Your task to perform on an android device: Show me productivity apps on the Play Store Image 0: 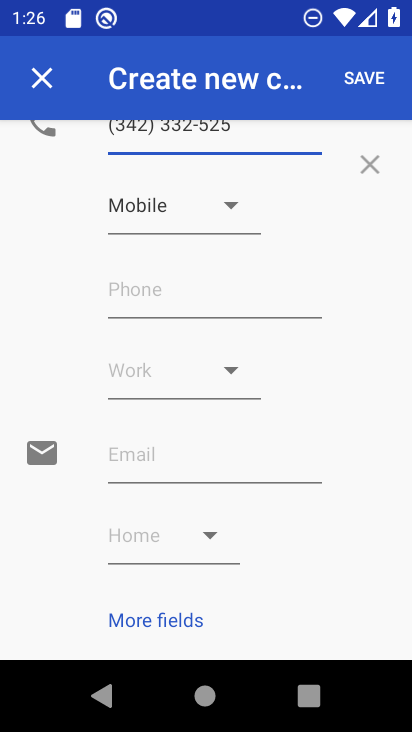
Step 0: press home button
Your task to perform on an android device: Show me productivity apps on the Play Store Image 1: 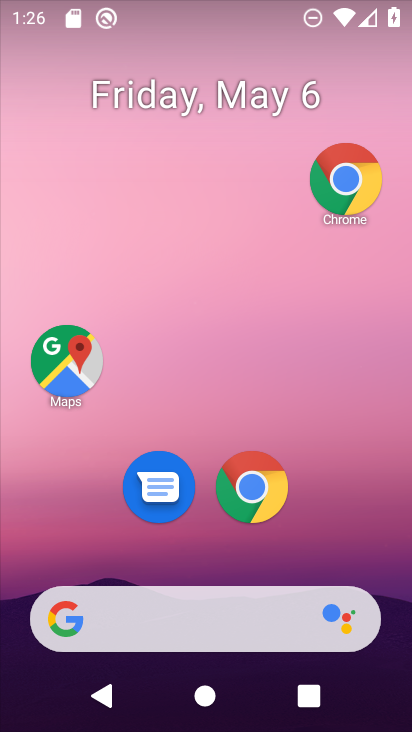
Step 1: drag from (347, 534) to (307, 168)
Your task to perform on an android device: Show me productivity apps on the Play Store Image 2: 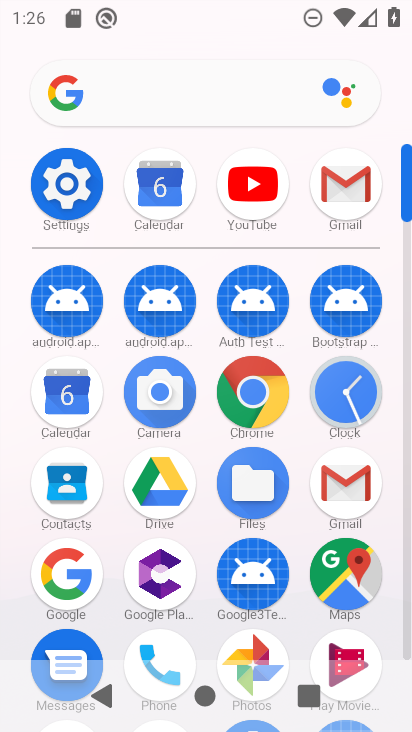
Step 2: click (410, 454)
Your task to perform on an android device: Show me productivity apps on the Play Store Image 3: 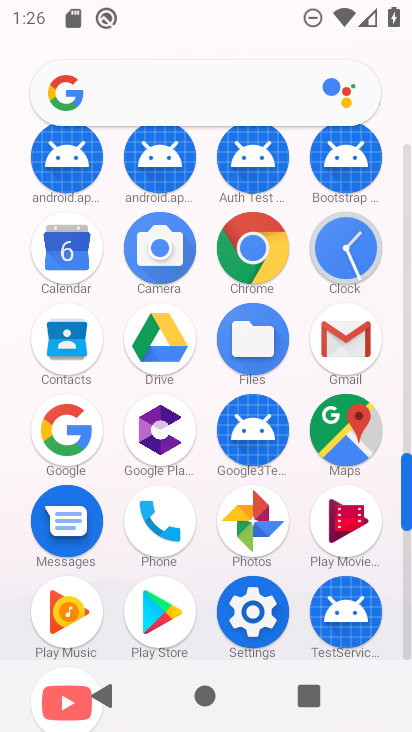
Step 3: click (143, 619)
Your task to perform on an android device: Show me productivity apps on the Play Store Image 4: 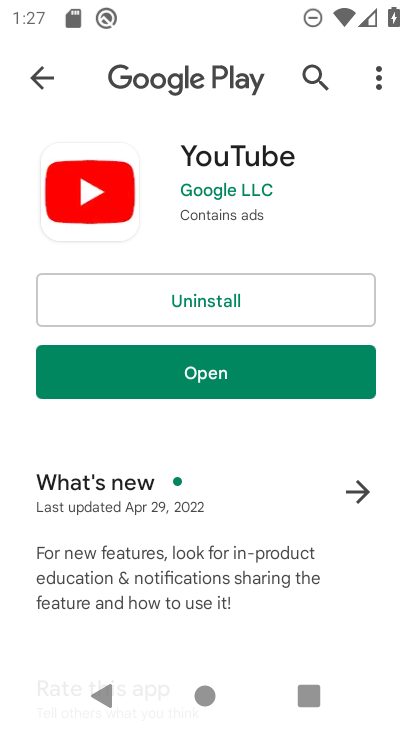
Step 4: click (318, 394)
Your task to perform on an android device: Show me productivity apps on the Play Store Image 5: 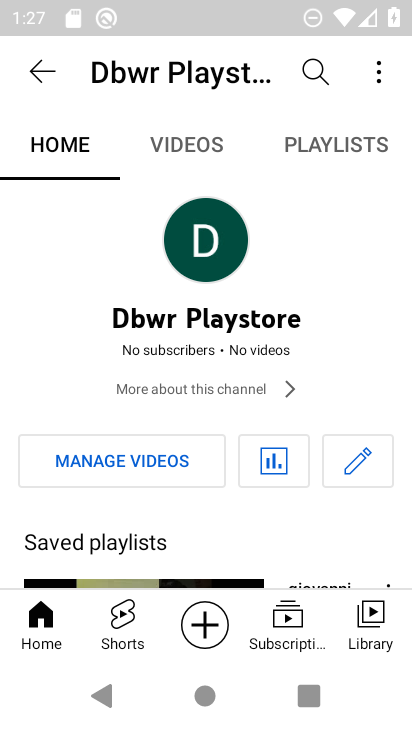
Step 5: press back button
Your task to perform on an android device: Show me productivity apps on the Play Store Image 6: 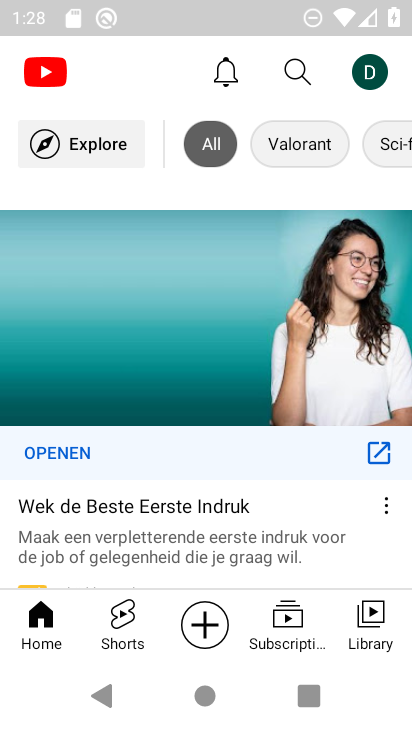
Step 6: press back button
Your task to perform on an android device: Show me productivity apps on the Play Store Image 7: 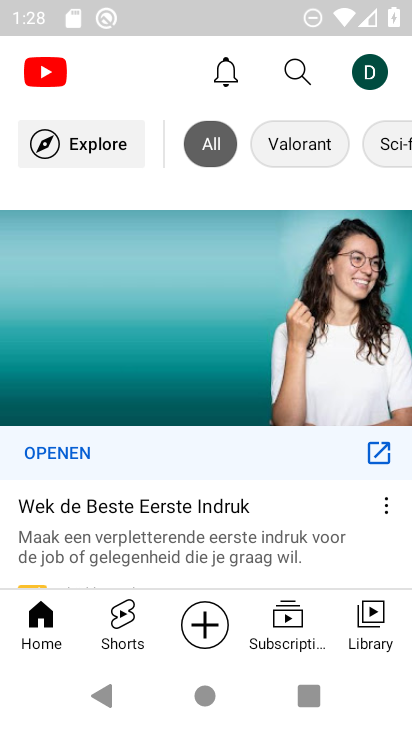
Step 7: press back button
Your task to perform on an android device: Show me productivity apps on the Play Store Image 8: 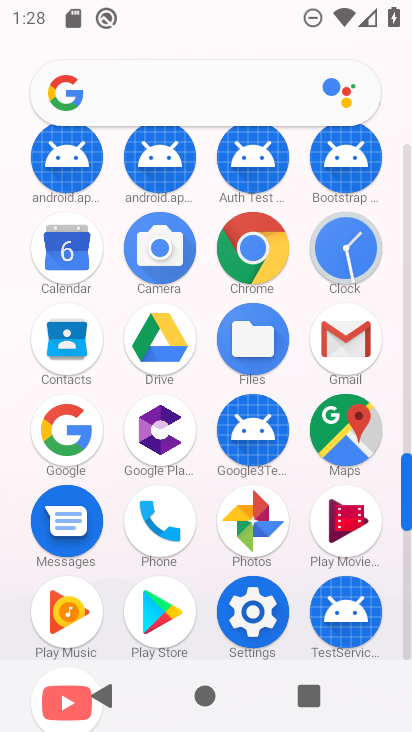
Step 8: click (182, 616)
Your task to perform on an android device: Show me productivity apps on the Play Store Image 9: 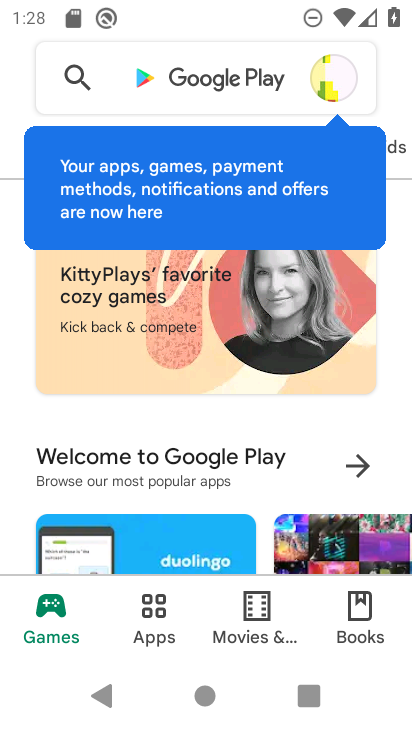
Step 9: click (167, 608)
Your task to perform on an android device: Show me productivity apps on the Play Store Image 10: 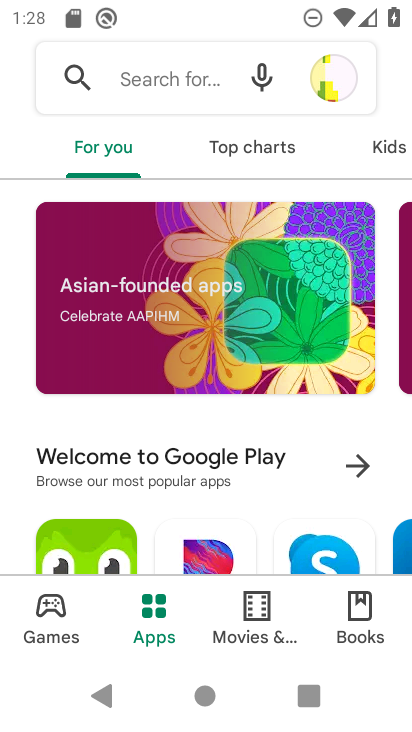
Step 10: click (266, 163)
Your task to perform on an android device: Show me productivity apps on the Play Store Image 11: 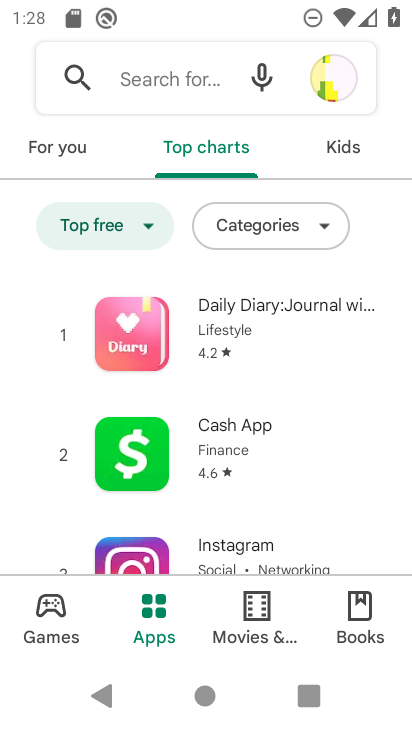
Step 11: click (246, 223)
Your task to perform on an android device: Show me productivity apps on the Play Store Image 12: 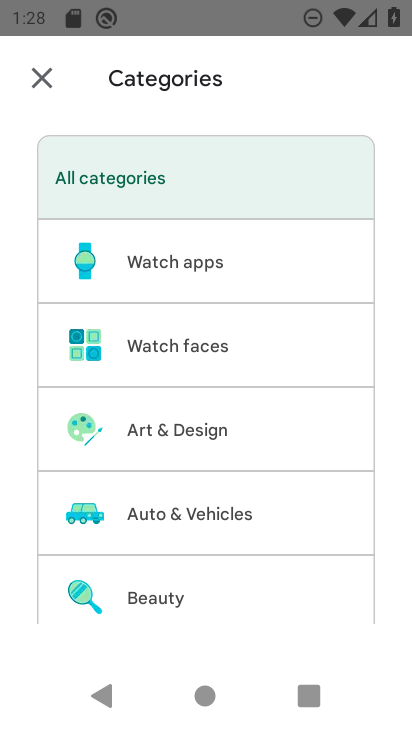
Step 12: drag from (252, 541) to (258, 225)
Your task to perform on an android device: Show me productivity apps on the Play Store Image 13: 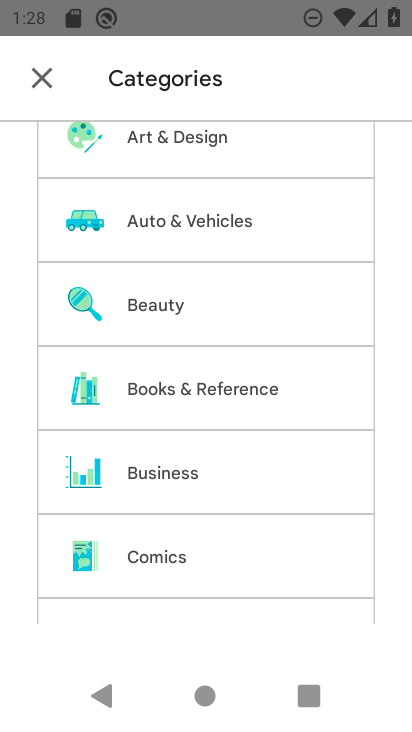
Step 13: drag from (237, 484) to (252, 241)
Your task to perform on an android device: Show me productivity apps on the Play Store Image 14: 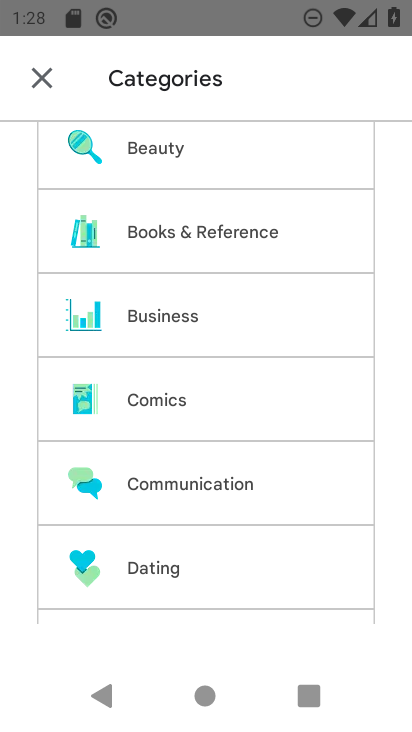
Step 14: drag from (170, 581) to (196, 327)
Your task to perform on an android device: Show me productivity apps on the Play Store Image 15: 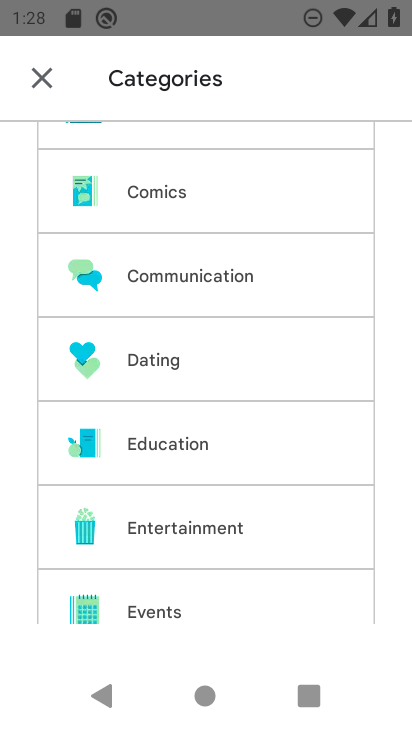
Step 15: drag from (187, 547) to (194, 401)
Your task to perform on an android device: Show me productivity apps on the Play Store Image 16: 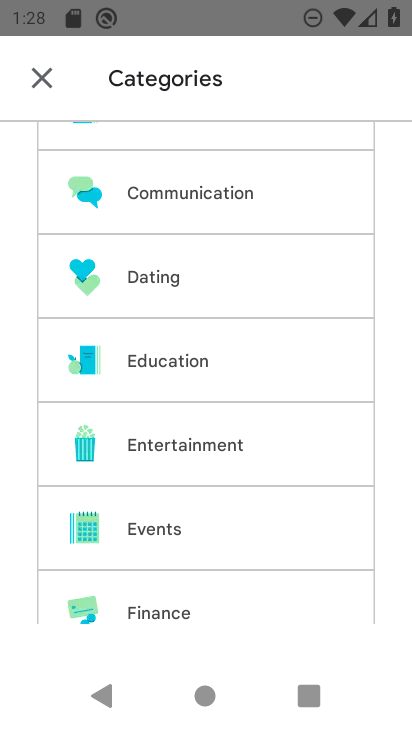
Step 16: drag from (182, 577) to (192, 329)
Your task to perform on an android device: Show me productivity apps on the Play Store Image 17: 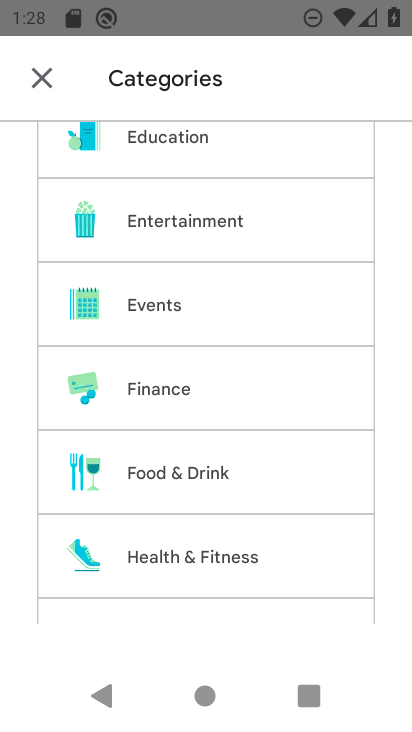
Step 17: drag from (192, 557) to (192, 253)
Your task to perform on an android device: Show me productivity apps on the Play Store Image 18: 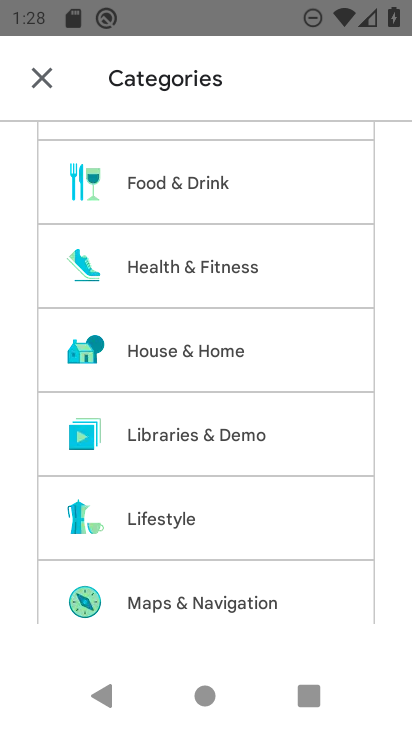
Step 18: drag from (198, 535) to (212, 290)
Your task to perform on an android device: Show me productivity apps on the Play Store Image 19: 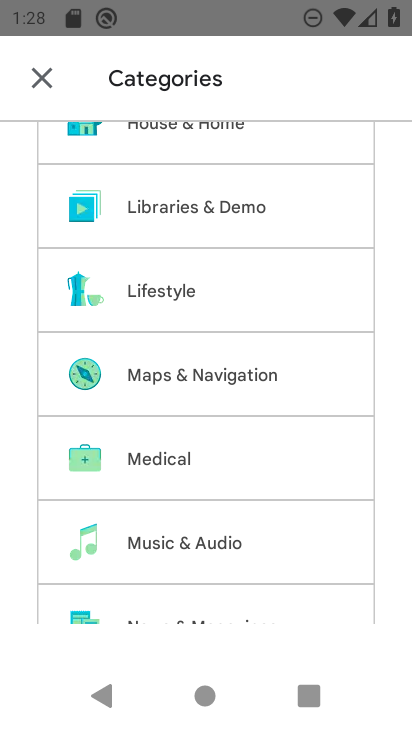
Step 19: drag from (212, 564) to (210, 440)
Your task to perform on an android device: Show me productivity apps on the Play Store Image 20: 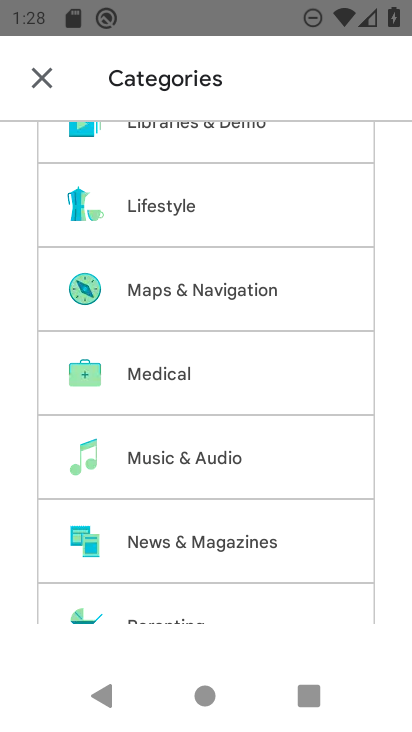
Step 20: drag from (200, 608) to (200, 332)
Your task to perform on an android device: Show me productivity apps on the Play Store Image 21: 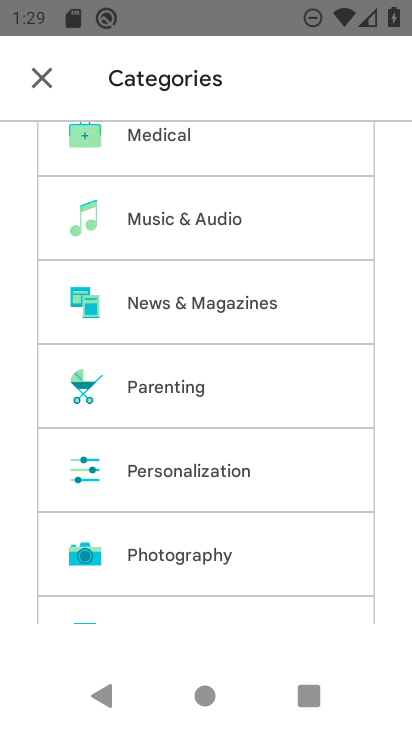
Step 21: drag from (204, 571) to (208, 369)
Your task to perform on an android device: Show me productivity apps on the Play Store Image 22: 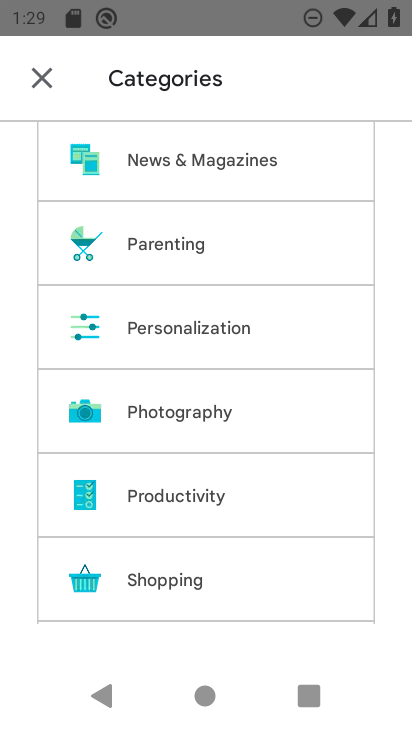
Step 22: click (198, 493)
Your task to perform on an android device: Show me productivity apps on the Play Store Image 23: 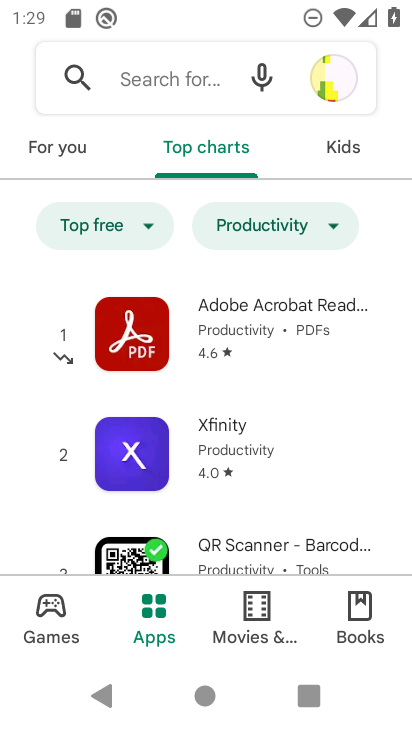
Step 23: task complete